Your task to perform on an android device: Toggle the flashlight Image 0: 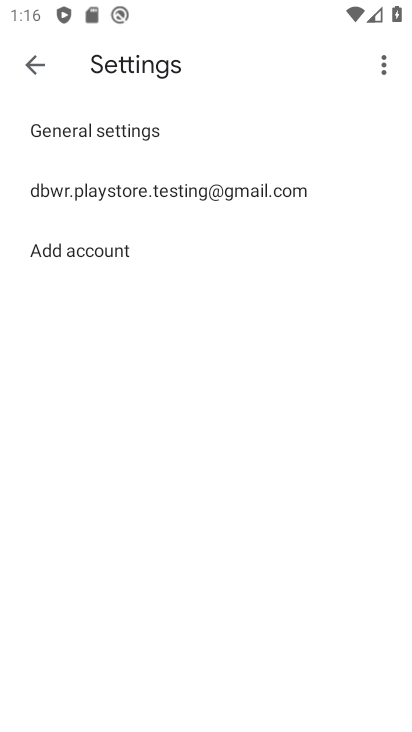
Step 0: press home button
Your task to perform on an android device: Toggle the flashlight Image 1: 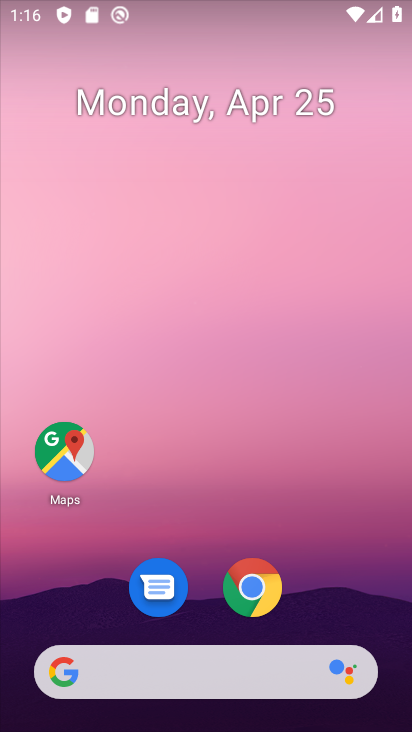
Step 1: task complete